Your task to perform on an android device: read, delete, or share a saved page in the chrome app Image 0: 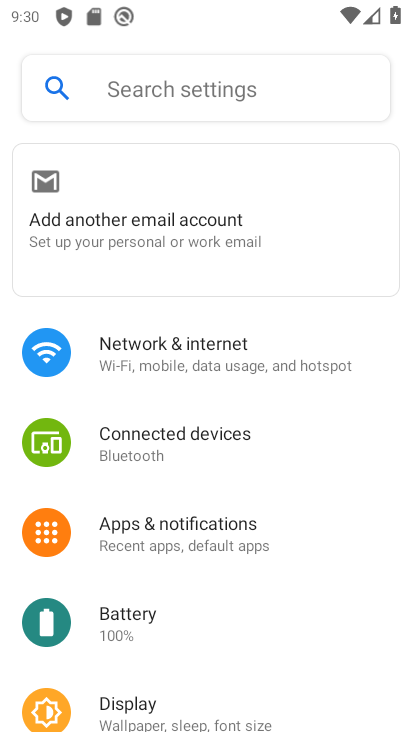
Step 0: press home button
Your task to perform on an android device: read, delete, or share a saved page in the chrome app Image 1: 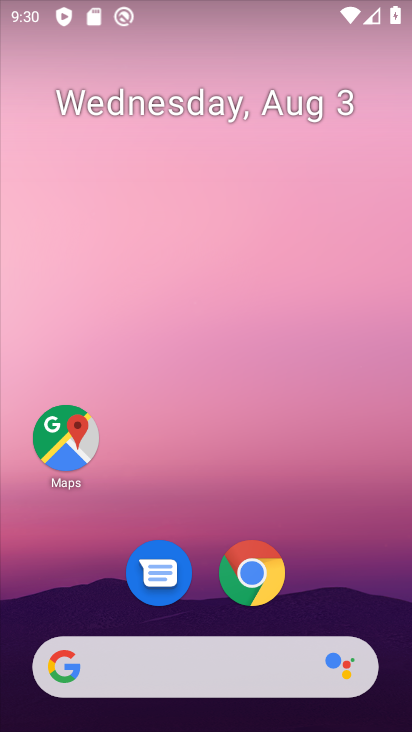
Step 1: drag from (192, 643) to (151, 4)
Your task to perform on an android device: read, delete, or share a saved page in the chrome app Image 2: 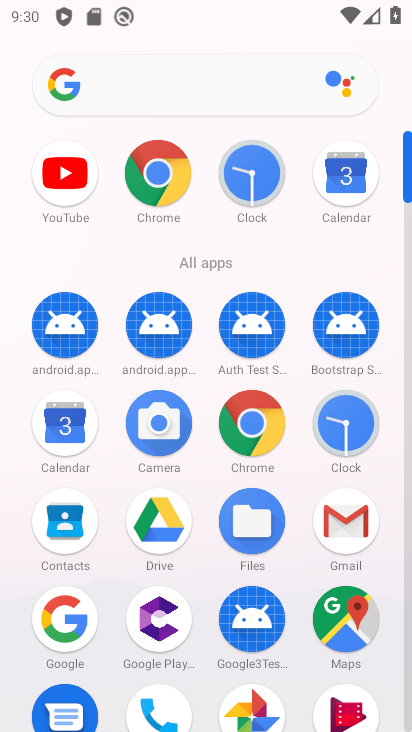
Step 2: click (257, 447)
Your task to perform on an android device: read, delete, or share a saved page in the chrome app Image 3: 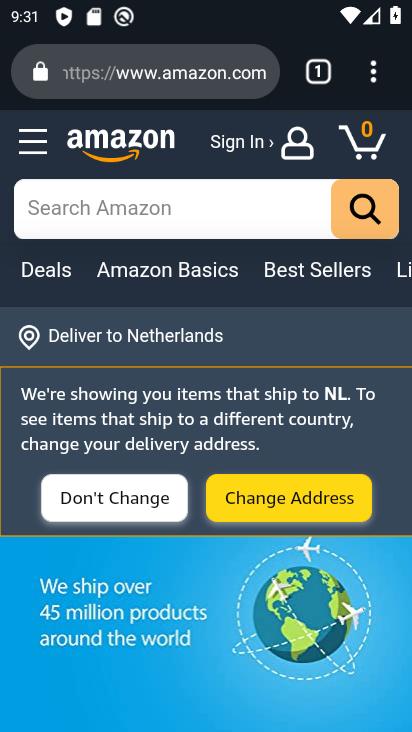
Step 3: drag from (370, 66) to (152, 466)
Your task to perform on an android device: read, delete, or share a saved page in the chrome app Image 4: 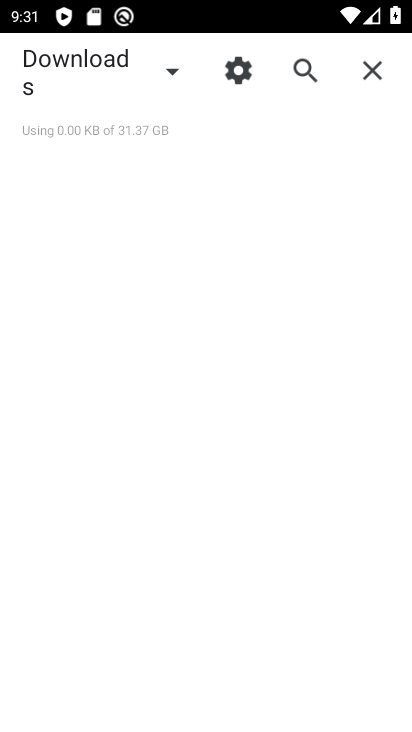
Step 4: click (173, 71)
Your task to perform on an android device: read, delete, or share a saved page in the chrome app Image 5: 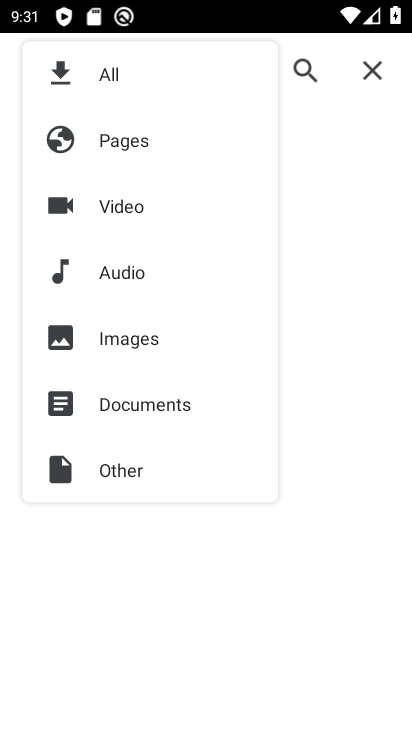
Step 5: click (90, 141)
Your task to perform on an android device: read, delete, or share a saved page in the chrome app Image 6: 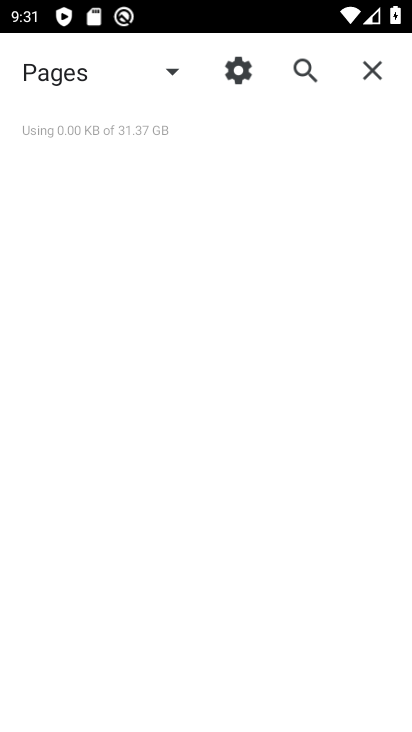
Step 6: task complete